Your task to perform on an android device: turn off improve location accuracy Image 0: 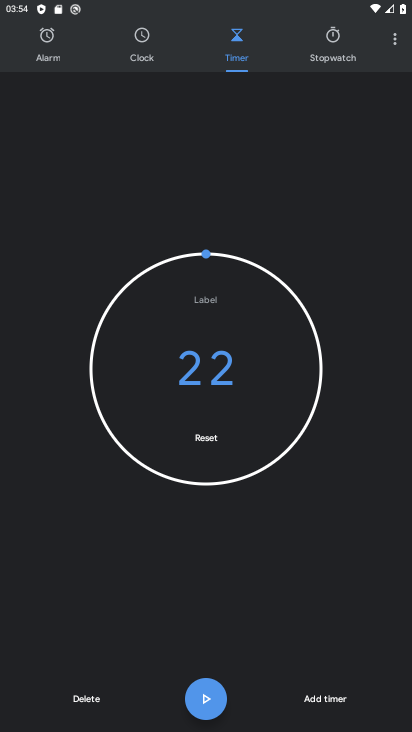
Step 0: click (396, 47)
Your task to perform on an android device: turn off improve location accuracy Image 1: 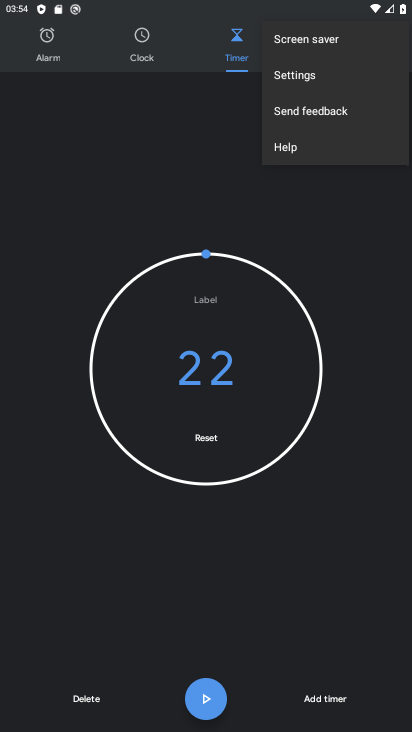
Step 1: click (284, 86)
Your task to perform on an android device: turn off improve location accuracy Image 2: 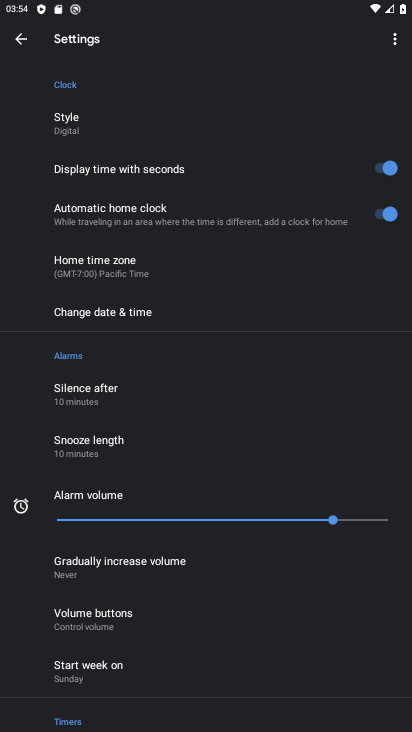
Step 2: click (21, 39)
Your task to perform on an android device: turn off improve location accuracy Image 3: 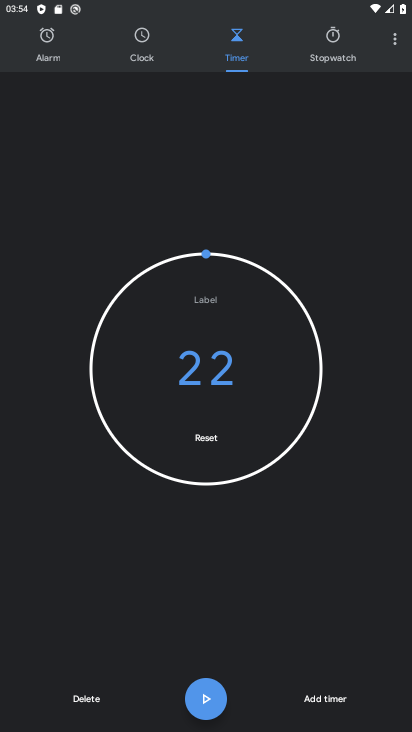
Step 3: press home button
Your task to perform on an android device: turn off improve location accuracy Image 4: 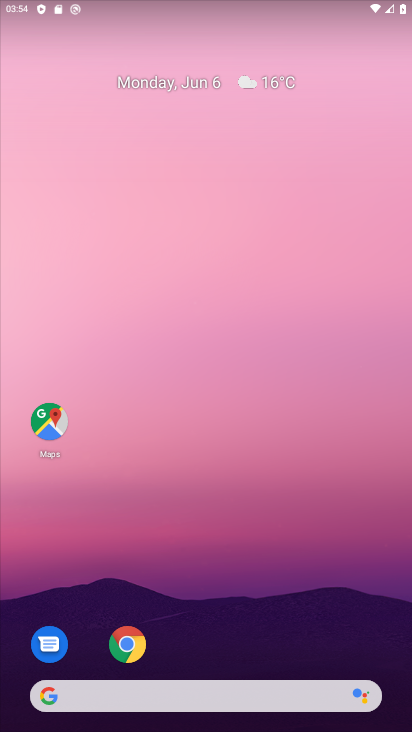
Step 4: drag from (379, 630) to (303, 57)
Your task to perform on an android device: turn off improve location accuracy Image 5: 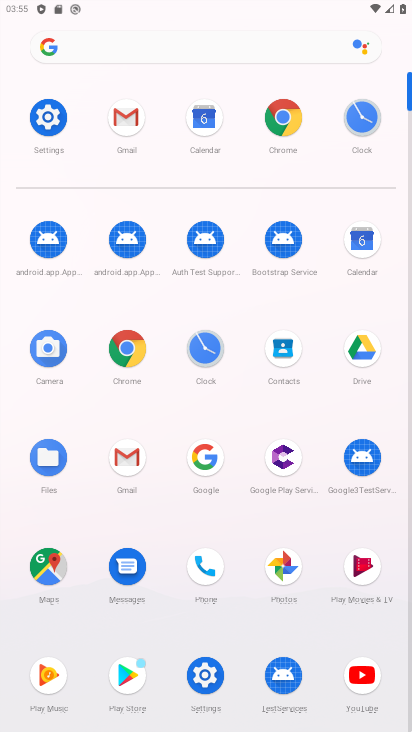
Step 5: click (47, 110)
Your task to perform on an android device: turn off improve location accuracy Image 6: 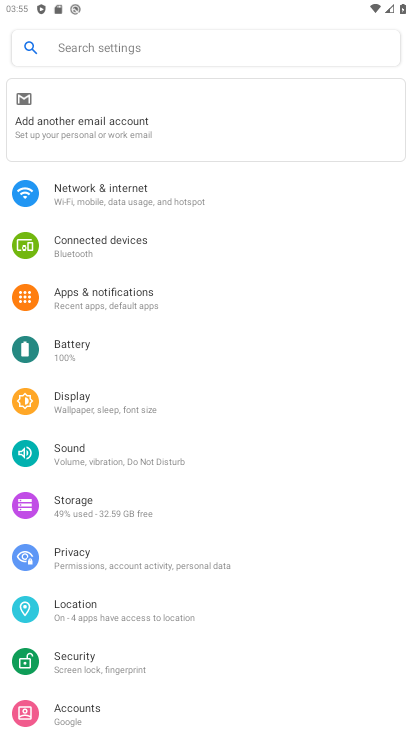
Step 6: drag from (269, 676) to (254, 232)
Your task to perform on an android device: turn off improve location accuracy Image 7: 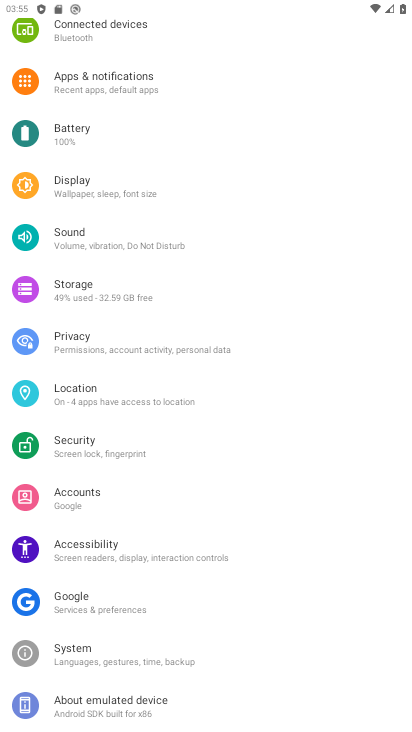
Step 7: click (79, 388)
Your task to perform on an android device: turn off improve location accuracy Image 8: 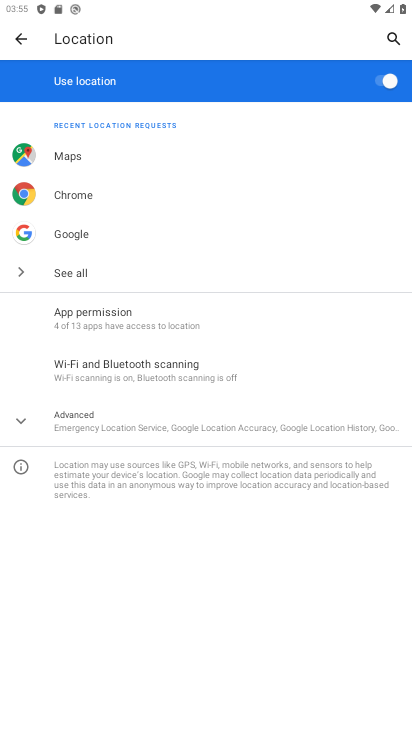
Step 8: click (376, 81)
Your task to perform on an android device: turn off improve location accuracy Image 9: 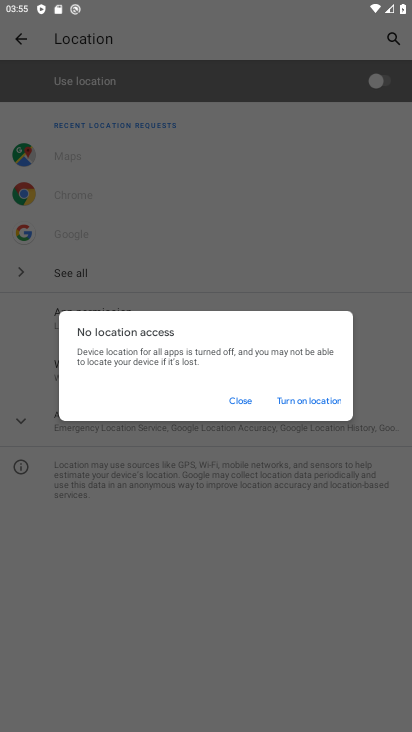
Step 9: click (241, 399)
Your task to perform on an android device: turn off improve location accuracy Image 10: 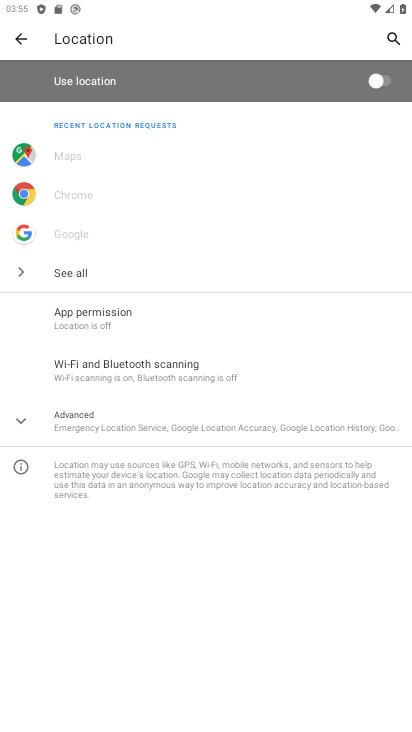
Step 10: task complete